Your task to perform on an android device: Do I have any events today? Image 0: 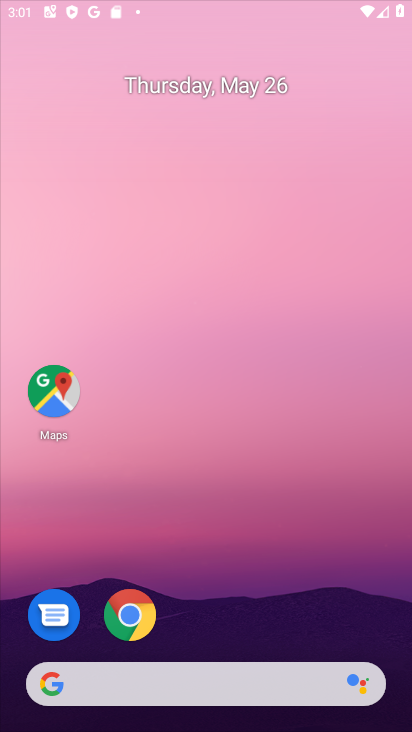
Step 0: drag from (238, 610) to (225, 94)
Your task to perform on an android device: Do I have any events today? Image 1: 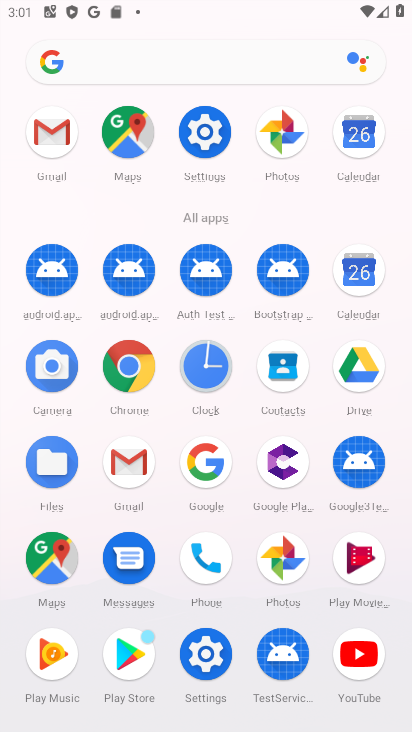
Step 1: drag from (227, 571) to (251, 119)
Your task to perform on an android device: Do I have any events today? Image 2: 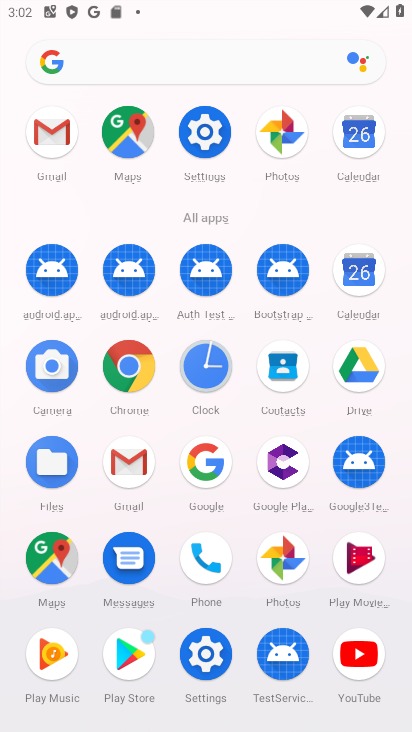
Step 2: click (356, 288)
Your task to perform on an android device: Do I have any events today? Image 3: 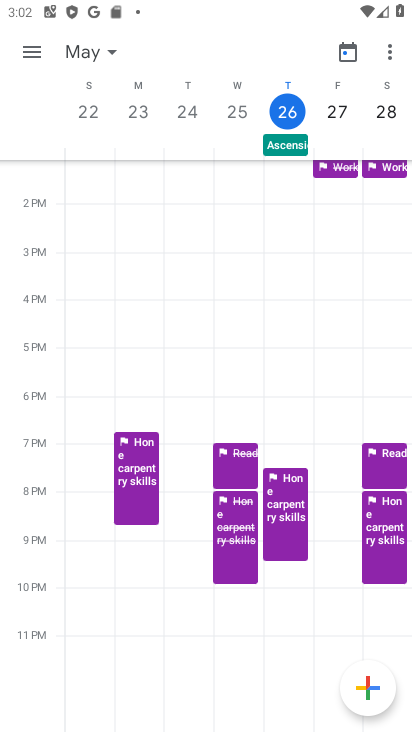
Step 3: drag from (296, 239) to (298, 518)
Your task to perform on an android device: Do I have any events today? Image 4: 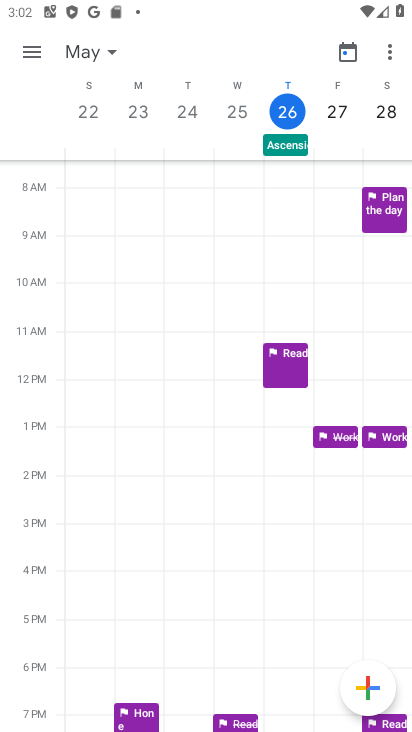
Step 4: drag from (327, 310) to (290, 679)
Your task to perform on an android device: Do I have any events today? Image 5: 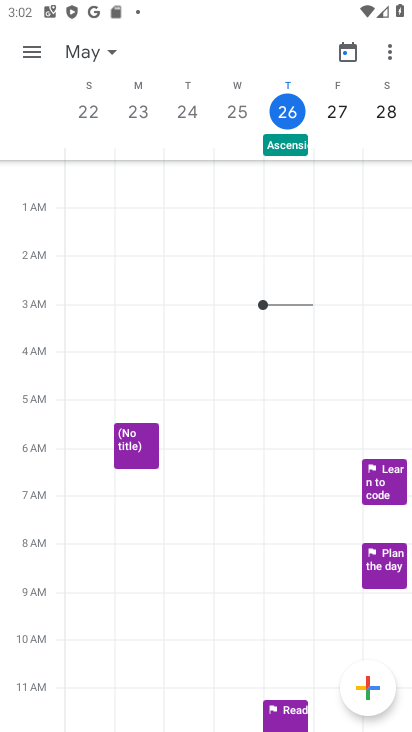
Step 5: drag from (336, 283) to (338, 683)
Your task to perform on an android device: Do I have any events today? Image 6: 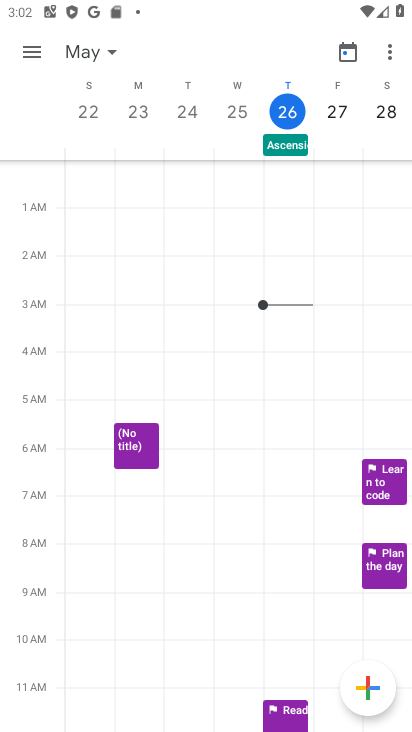
Step 6: drag from (345, 251) to (293, 716)
Your task to perform on an android device: Do I have any events today? Image 7: 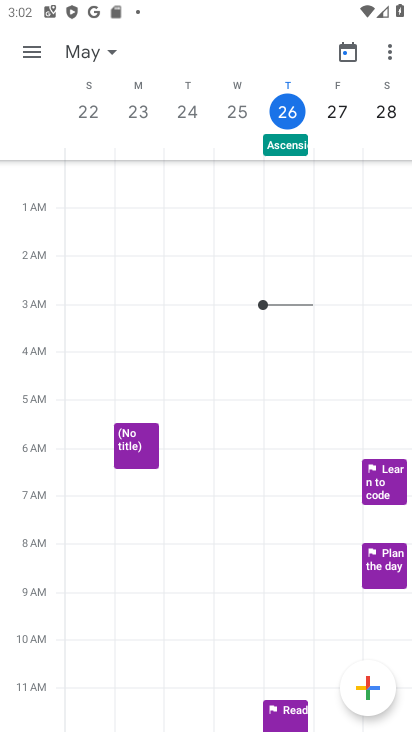
Step 7: drag from (299, 626) to (288, 193)
Your task to perform on an android device: Do I have any events today? Image 8: 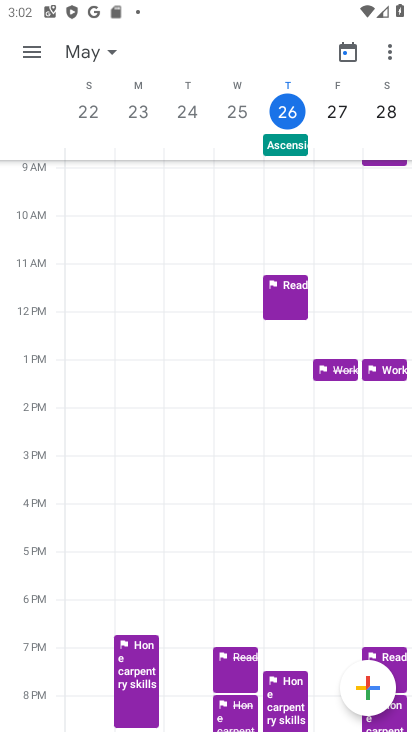
Step 8: click (96, 53)
Your task to perform on an android device: Do I have any events today? Image 9: 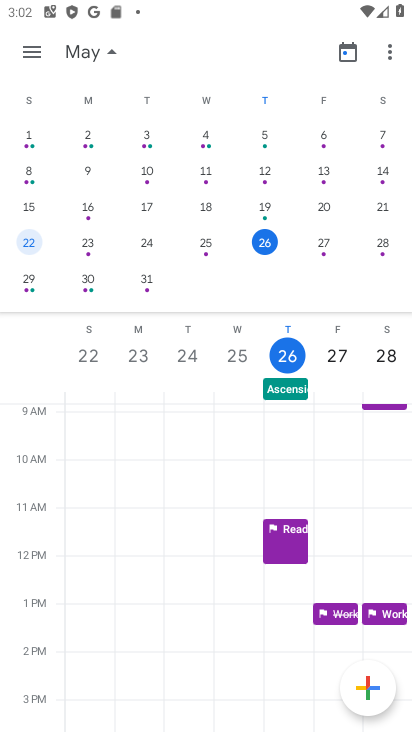
Step 9: click (20, 51)
Your task to perform on an android device: Do I have any events today? Image 10: 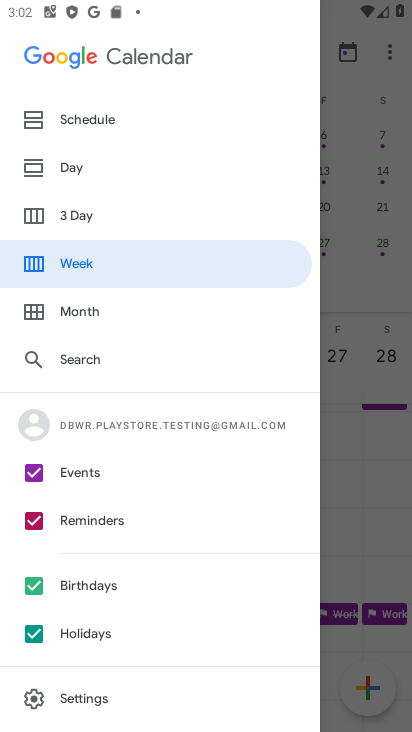
Step 10: click (91, 112)
Your task to perform on an android device: Do I have any events today? Image 11: 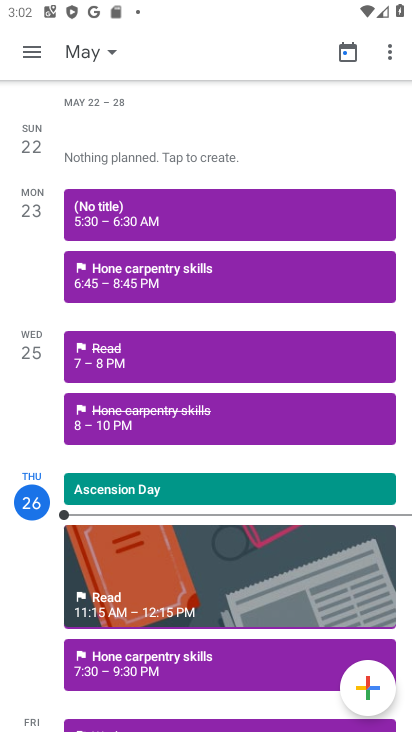
Step 11: task complete